Your task to perform on an android device: Play the last video I watched on Youtube Image 0: 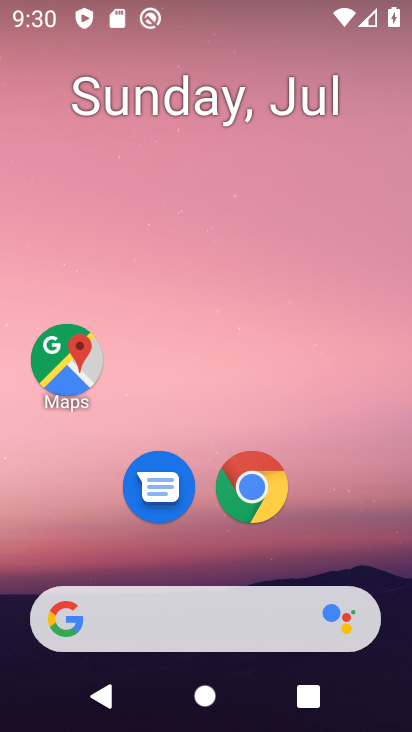
Step 0: drag from (162, 541) to (211, 105)
Your task to perform on an android device: Play the last video I watched on Youtube Image 1: 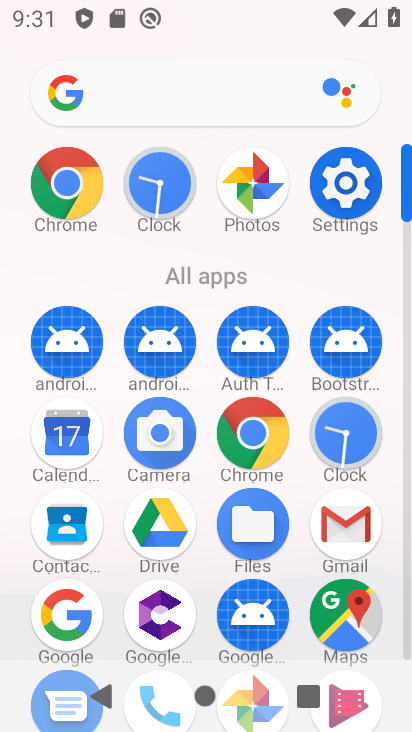
Step 1: drag from (162, 511) to (306, 5)
Your task to perform on an android device: Play the last video I watched on Youtube Image 2: 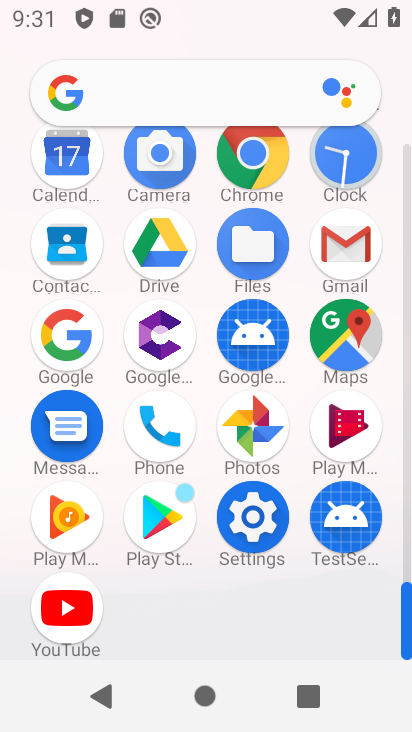
Step 2: click (63, 628)
Your task to perform on an android device: Play the last video I watched on Youtube Image 3: 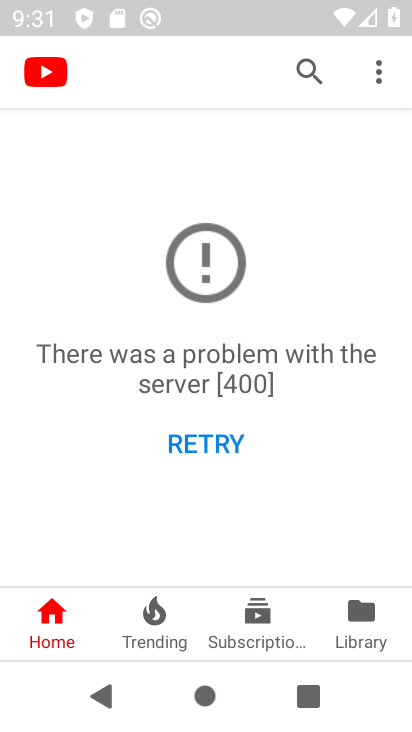
Step 3: task complete